Your task to perform on an android device: Is it going to rain today? Image 0: 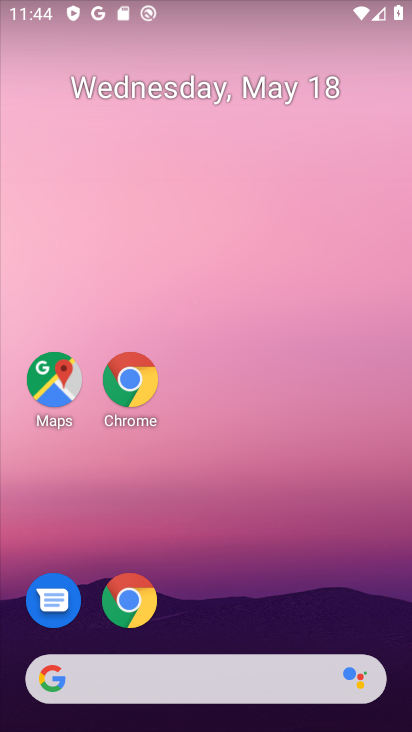
Step 0: drag from (326, 652) to (220, 85)
Your task to perform on an android device: Is it going to rain today? Image 1: 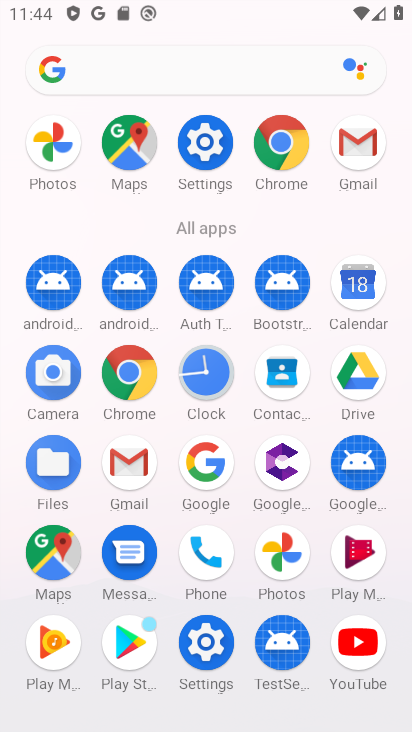
Step 1: press back button
Your task to perform on an android device: Is it going to rain today? Image 2: 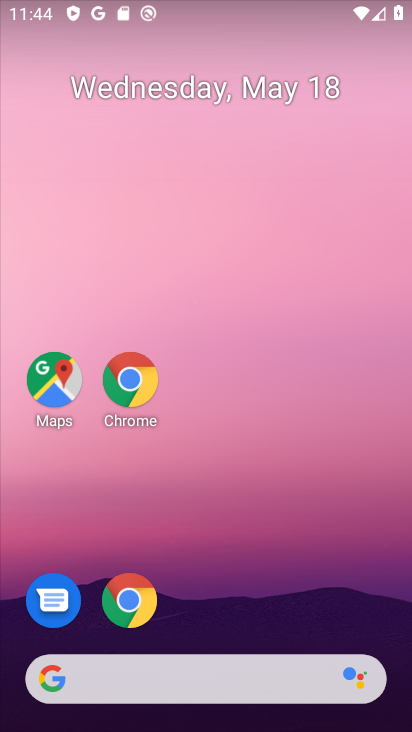
Step 2: drag from (6, 171) to (389, 371)
Your task to perform on an android device: Is it going to rain today? Image 3: 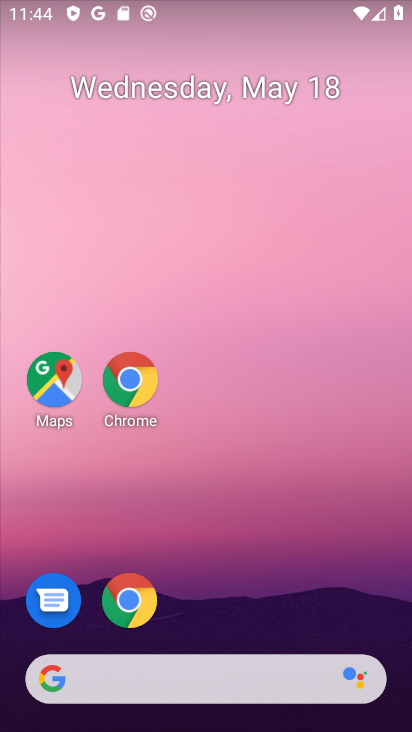
Step 3: drag from (2, 180) to (403, 539)
Your task to perform on an android device: Is it going to rain today? Image 4: 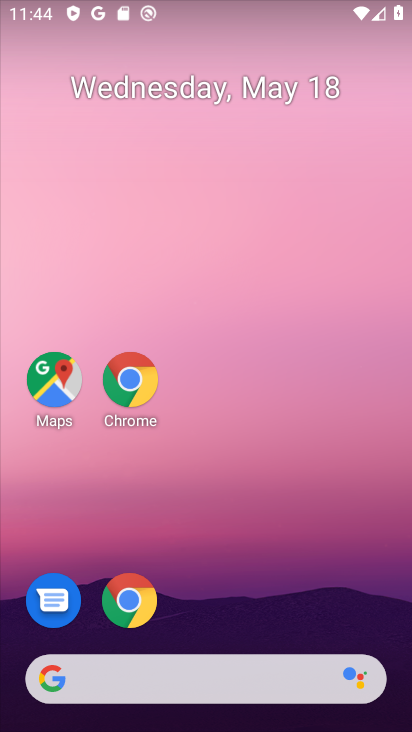
Step 4: drag from (251, 358) to (390, 438)
Your task to perform on an android device: Is it going to rain today? Image 5: 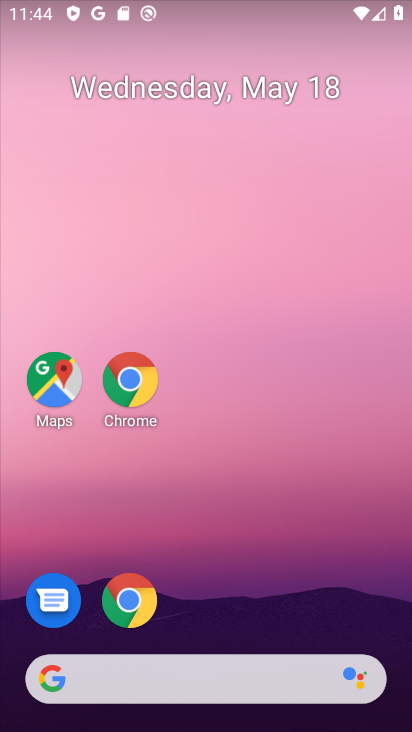
Step 5: drag from (10, 242) to (406, 570)
Your task to perform on an android device: Is it going to rain today? Image 6: 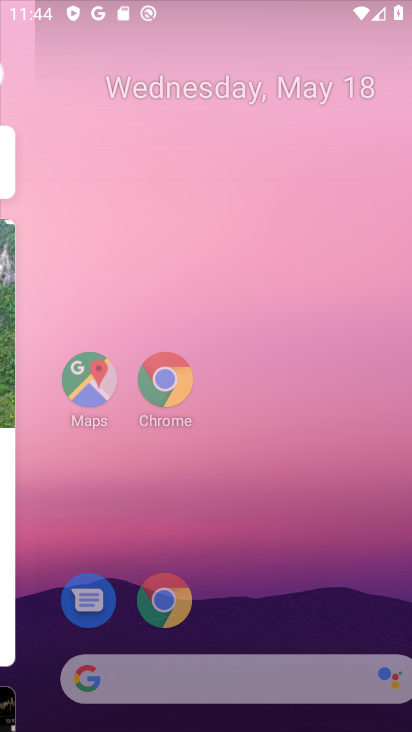
Step 6: drag from (8, 131) to (380, 413)
Your task to perform on an android device: Is it going to rain today? Image 7: 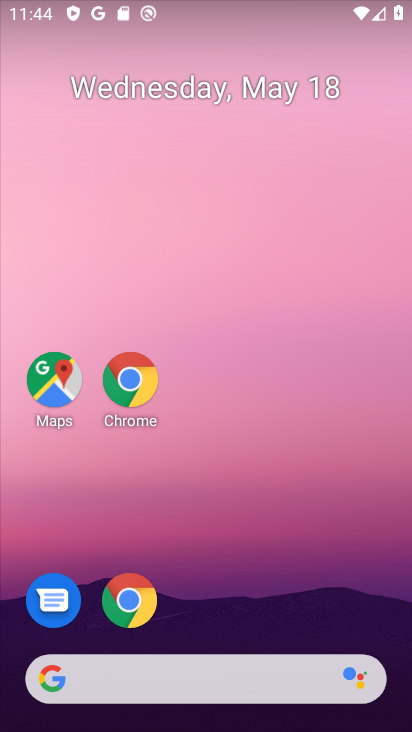
Step 7: drag from (9, 200) to (391, 358)
Your task to perform on an android device: Is it going to rain today? Image 8: 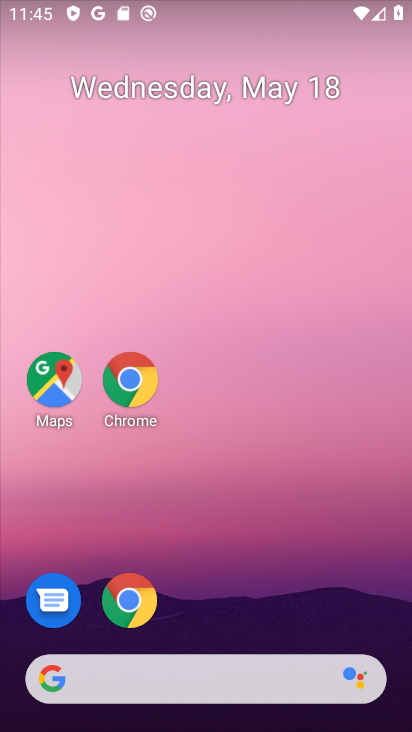
Step 8: drag from (24, 188) to (344, 388)
Your task to perform on an android device: Is it going to rain today? Image 9: 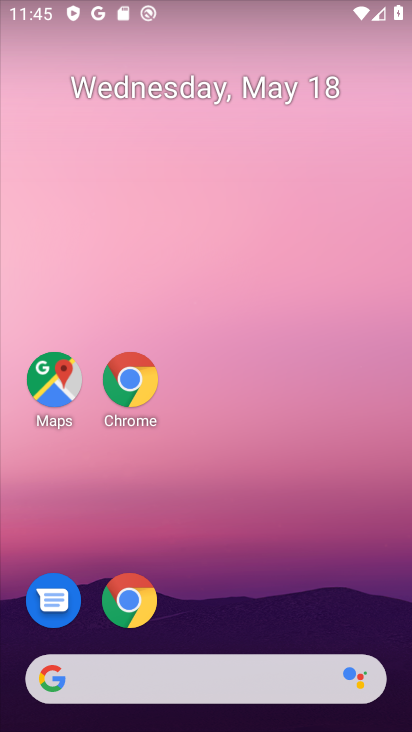
Step 9: drag from (12, 209) to (405, 329)
Your task to perform on an android device: Is it going to rain today? Image 10: 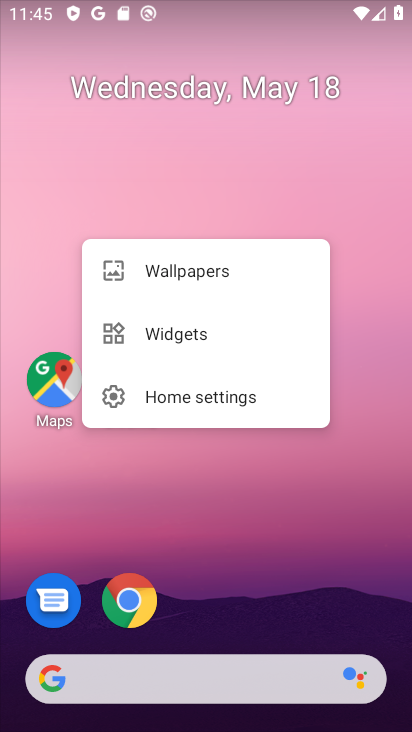
Step 10: drag from (10, 165) to (365, 258)
Your task to perform on an android device: Is it going to rain today? Image 11: 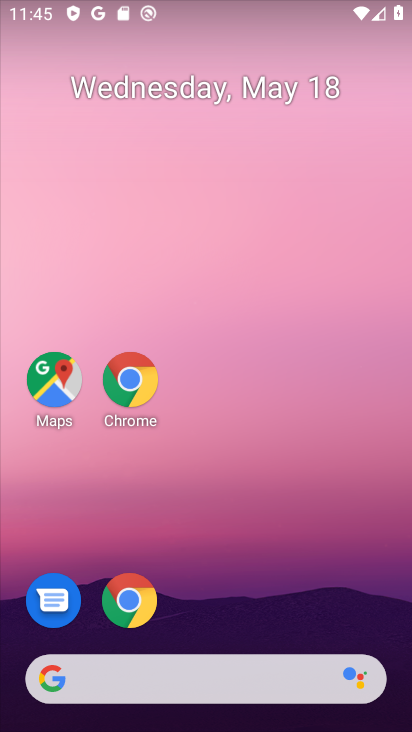
Step 11: click (115, 136)
Your task to perform on an android device: Is it going to rain today? Image 12: 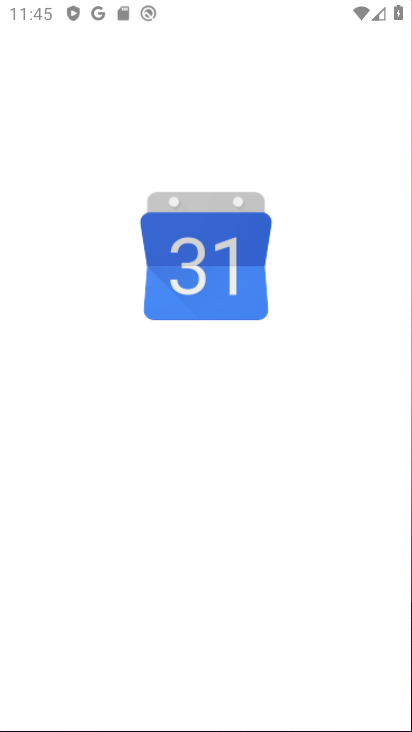
Step 12: drag from (9, 161) to (360, 431)
Your task to perform on an android device: Is it going to rain today? Image 13: 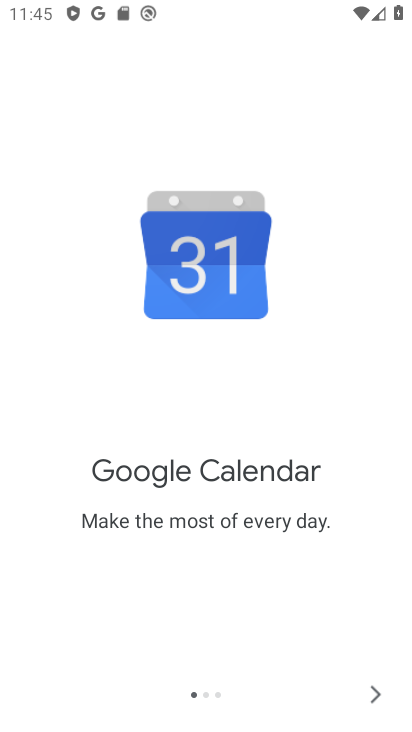
Step 13: click (370, 684)
Your task to perform on an android device: Is it going to rain today? Image 14: 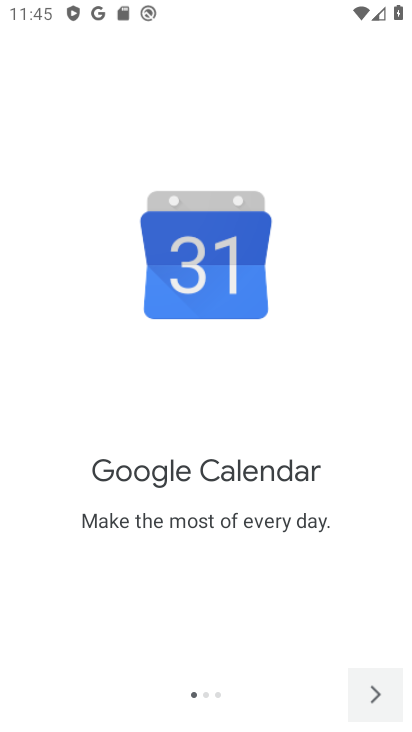
Step 14: click (374, 695)
Your task to perform on an android device: Is it going to rain today? Image 15: 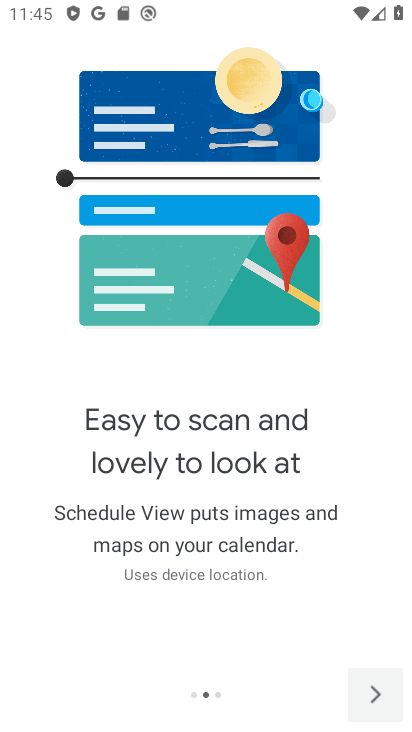
Step 15: click (382, 694)
Your task to perform on an android device: Is it going to rain today? Image 16: 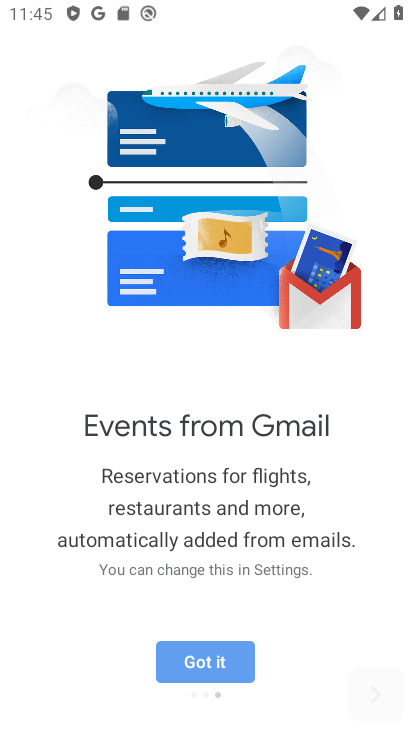
Step 16: click (385, 693)
Your task to perform on an android device: Is it going to rain today? Image 17: 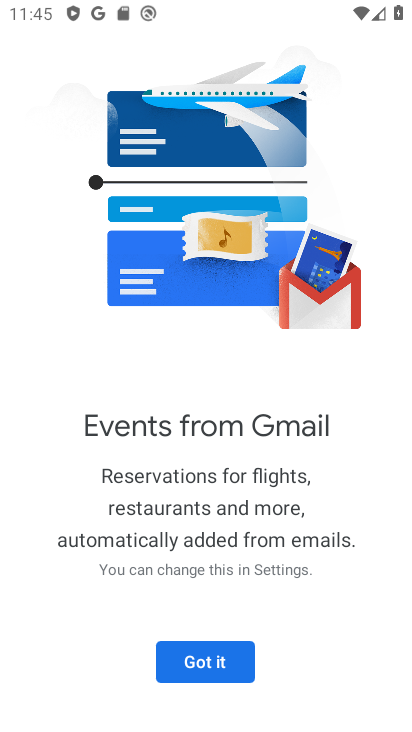
Step 17: click (199, 658)
Your task to perform on an android device: Is it going to rain today? Image 18: 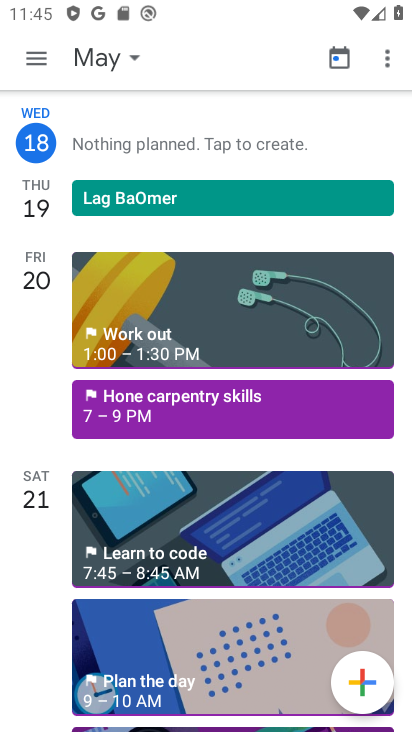
Step 18: press back button
Your task to perform on an android device: Is it going to rain today? Image 19: 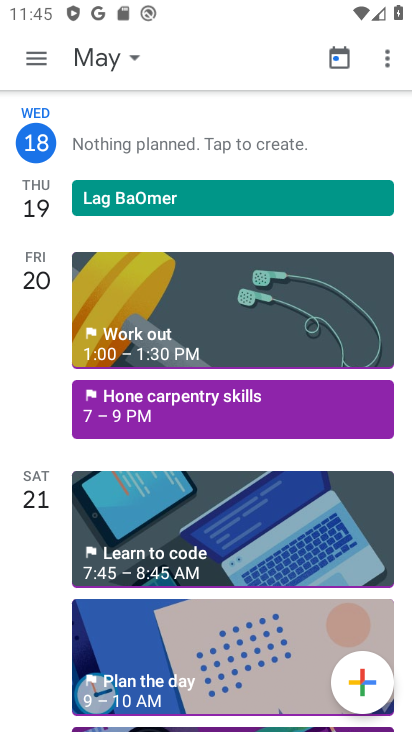
Step 19: press back button
Your task to perform on an android device: Is it going to rain today? Image 20: 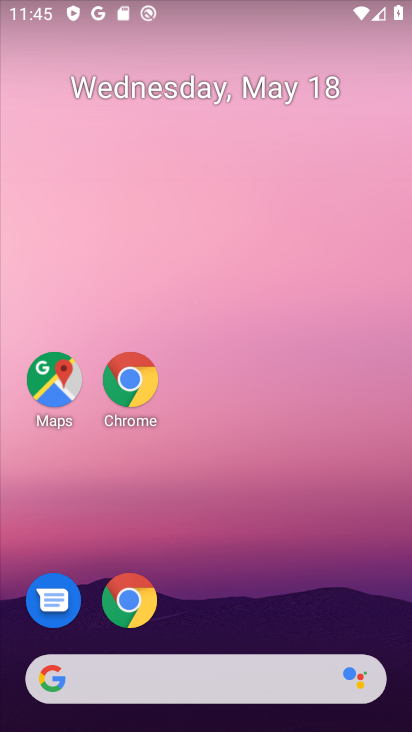
Step 20: drag from (36, 209) to (383, 716)
Your task to perform on an android device: Is it going to rain today? Image 21: 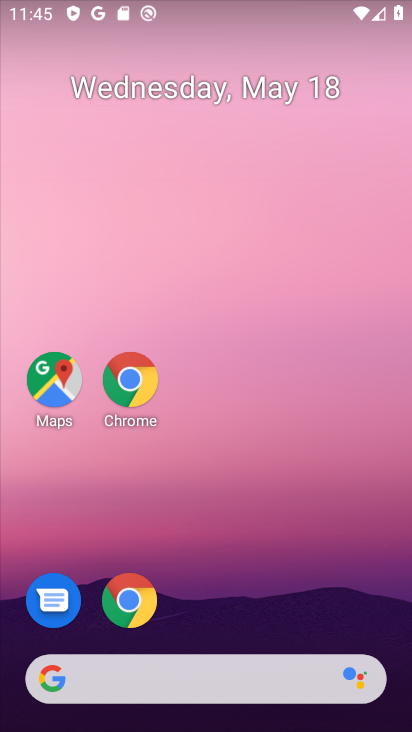
Step 21: drag from (8, 148) to (381, 541)
Your task to perform on an android device: Is it going to rain today? Image 22: 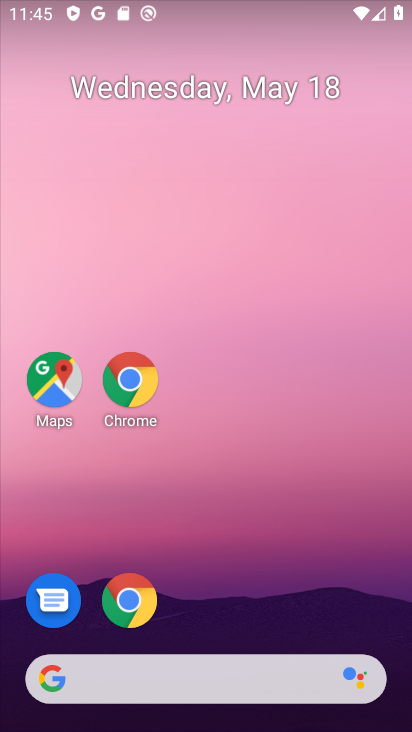
Step 22: drag from (74, 230) to (266, 371)
Your task to perform on an android device: Is it going to rain today? Image 23: 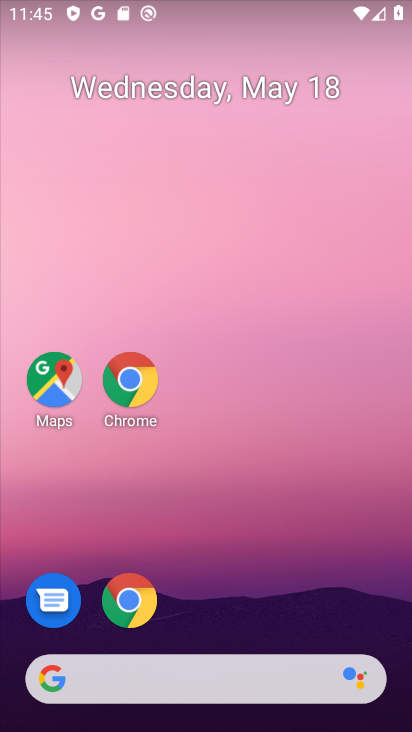
Step 23: drag from (215, 362) to (263, 410)
Your task to perform on an android device: Is it going to rain today? Image 24: 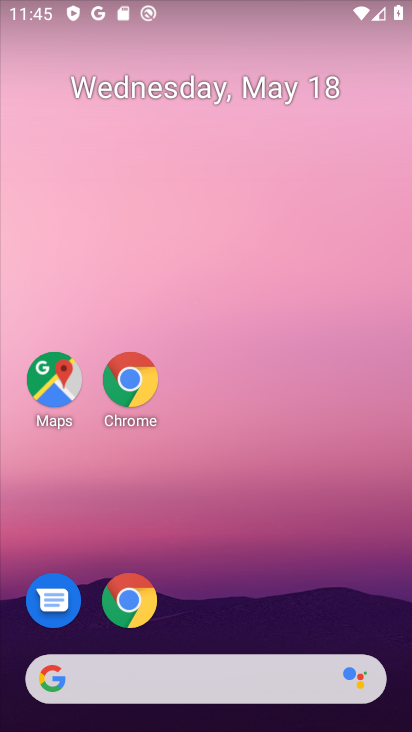
Step 24: click (271, 354)
Your task to perform on an android device: Is it going to rain today? Image 25: 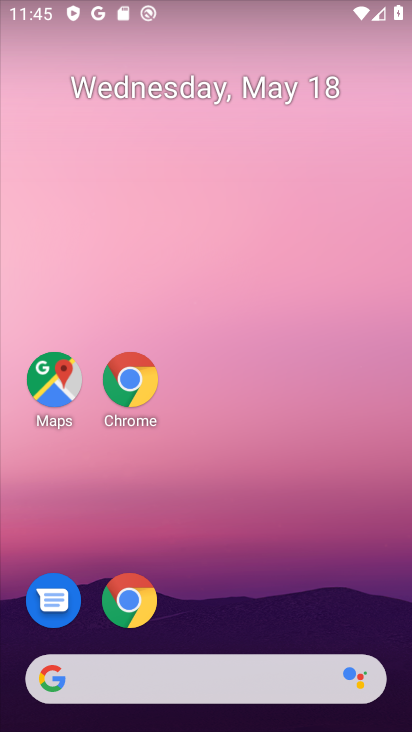
Step 25: drag from (66, 203) to (319, 483)
Your task to perform on an android device: Is it going to rain today? Image 26: 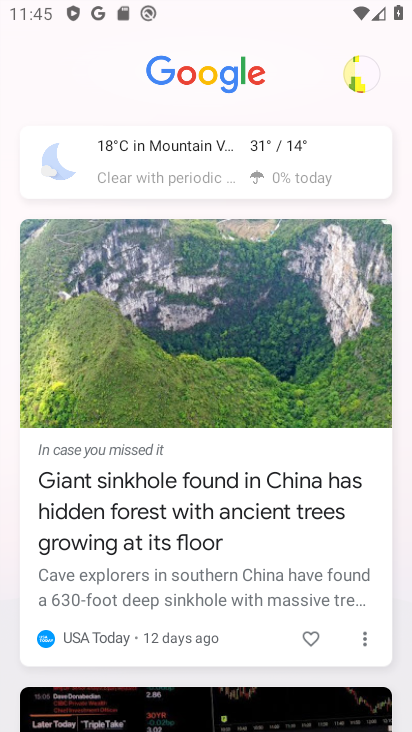
Step 26: click (175, 150)
Your task to perform on an android device: Is it going to rain today? Image 27: 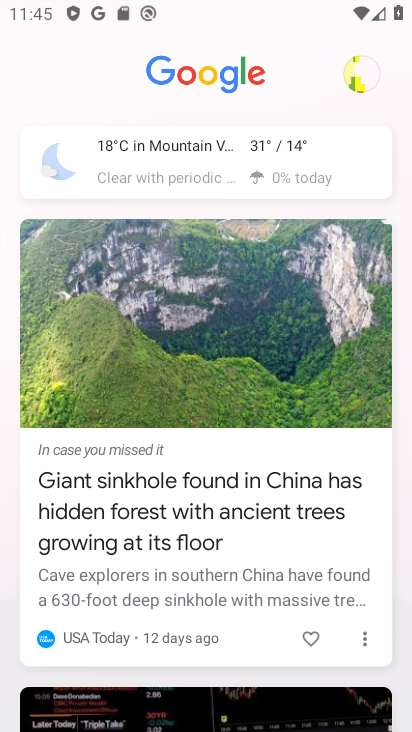
Step 27: click (179, 150)
Your task to perform on an android device: Is it going to rain today? Image 28: 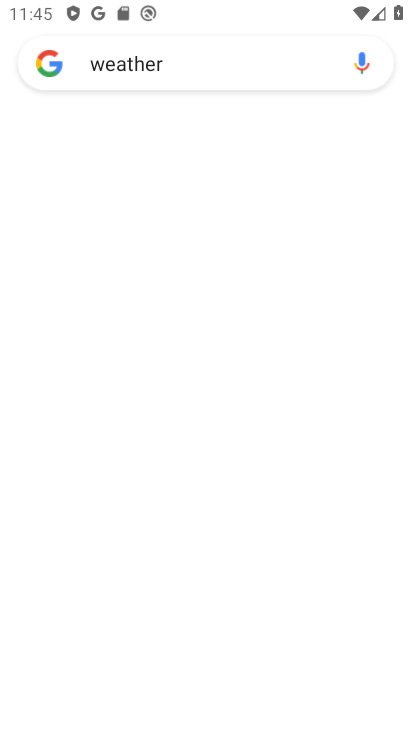
Step 28: click (176, 153)
Your task to perform on an android device: Is it going to rain today? Image 29: 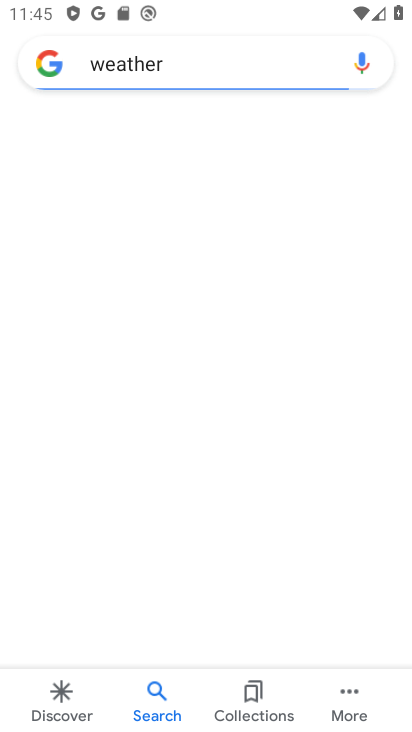
Step 29: click (172, 162)
Your task to perform on an android device: Is it going to rain today? Image 30: 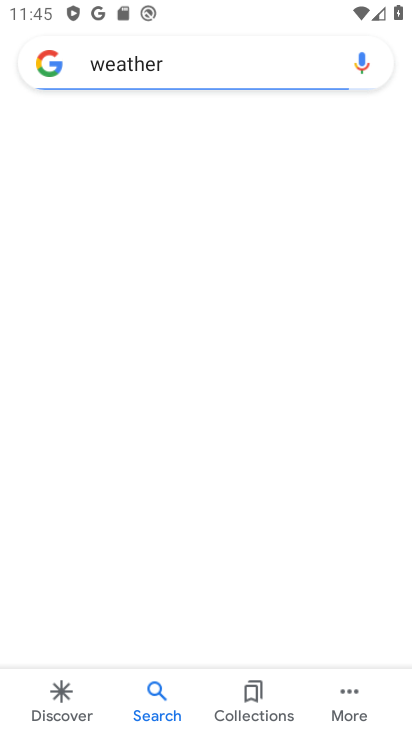
Step 30: click (172, 164)
Your task to perform on an android device: Is it going to rain today? Image 31: 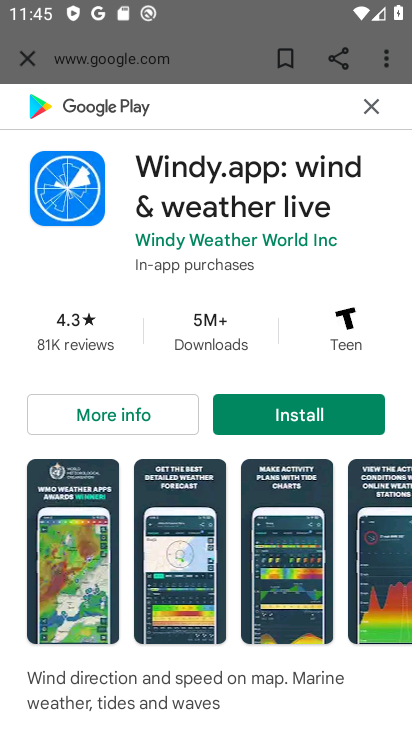
Step 31: click (380, 104)
Your task to perform on an android device: Is it going to rain today? Image 32: 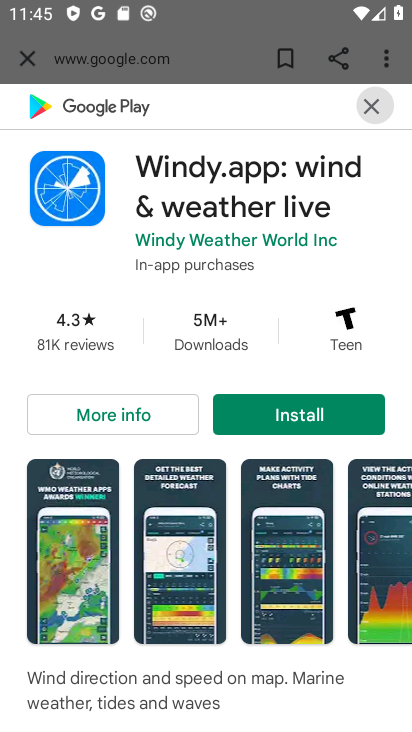
Step 32: click (380, 104)
Your task to perform on an android device: Is it going to rain today? Image 33: 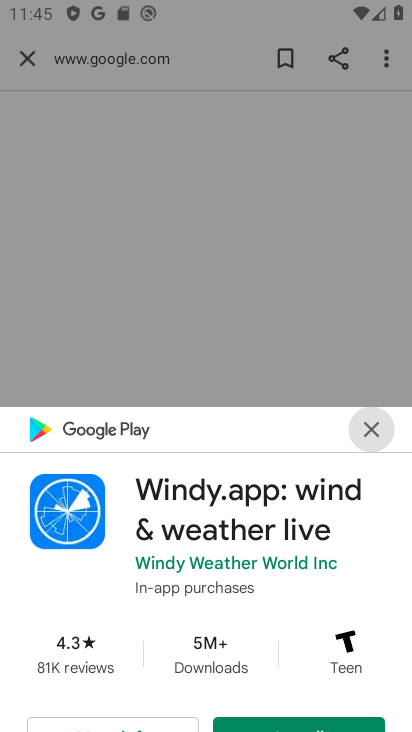
Step 33: click (380, 104)
Your task to perform on an android device: Is it going to rain today? Image 34: 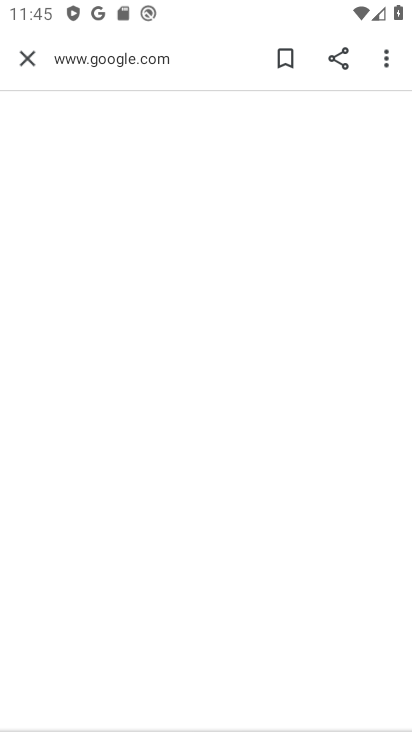
Step 34: click (380, 104)
Your task to perform on an android device: Is it going to rain today? Image 35: 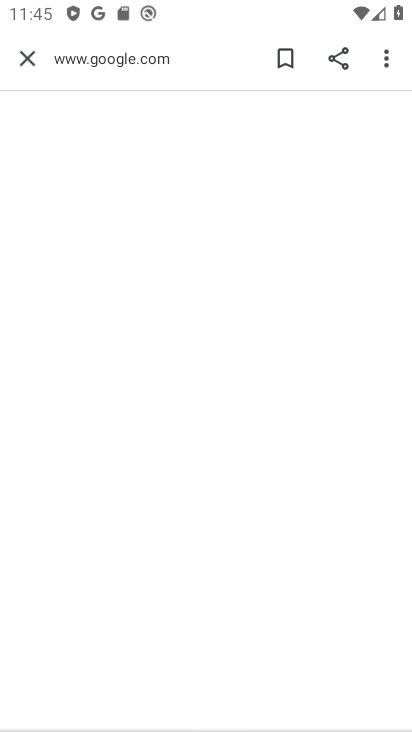
Step 35: click (381, 104)
Your task to perform on an android device: Is it going to rain today? Image 36: 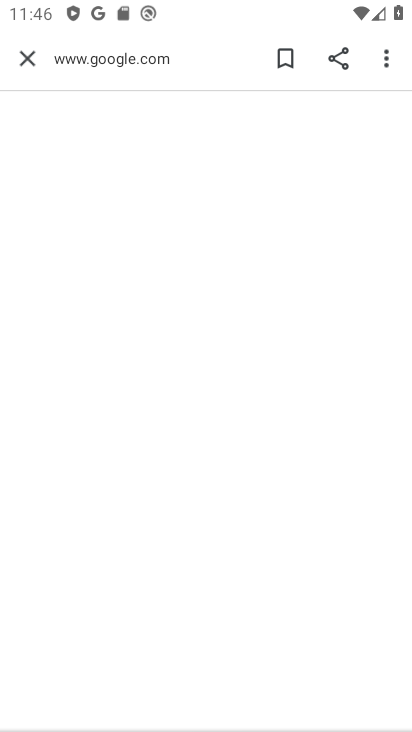
Step 36: click (29, 70)
Your task to perform on an android device: Is it going to rain today? Image 37: 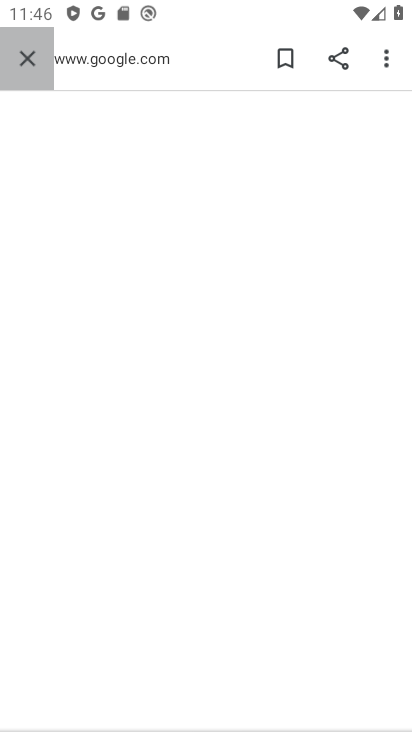
Step 37: click (29, 70)
Your task to perform on an android device: Is it going to rain today? Image 38: 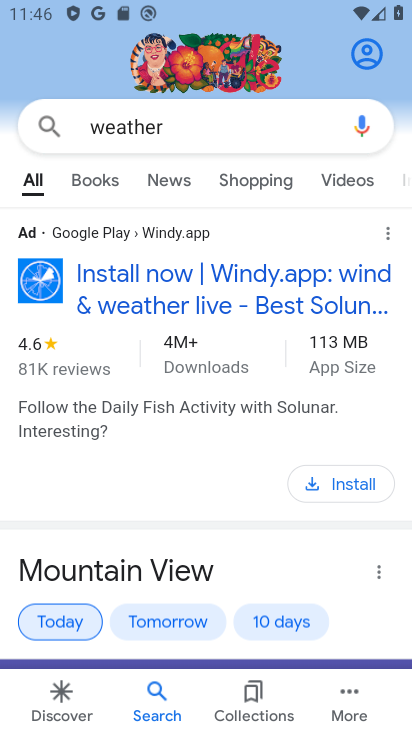
Step 38: click (28, 71)
Your task to perform on an android device: Is it going to rain today? Image 39: 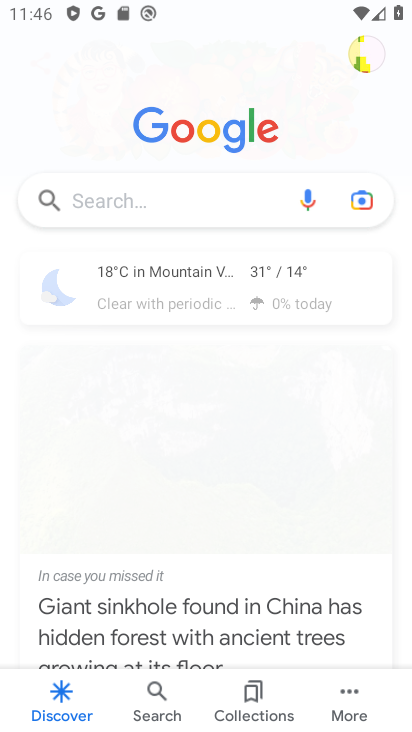
Step 39: click (28, 71)
Your task to perform on an android device: Is it going to rain today? Image 40: 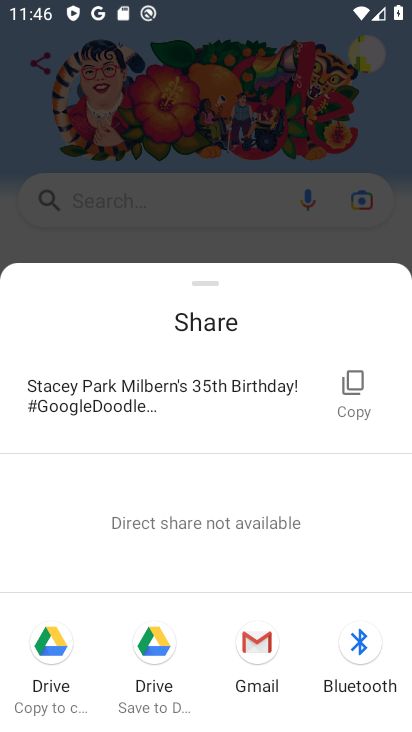
Step 40: click (211, 220)
Your task to perform on an android device: Is it going to rain today? Image 41: 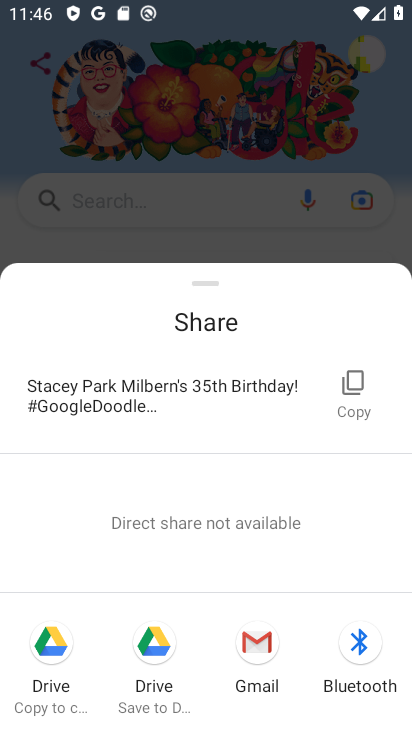
Step 41: click (211, 220)
Your task to perform on an android device: Is it going to rain today? Image 42: 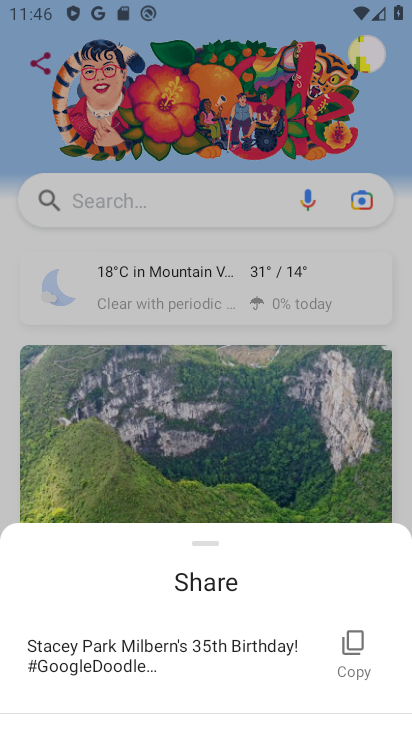
Step 42: click (214, 220)
Your task to perform on an android device: Is it going to rain today? Image 43: 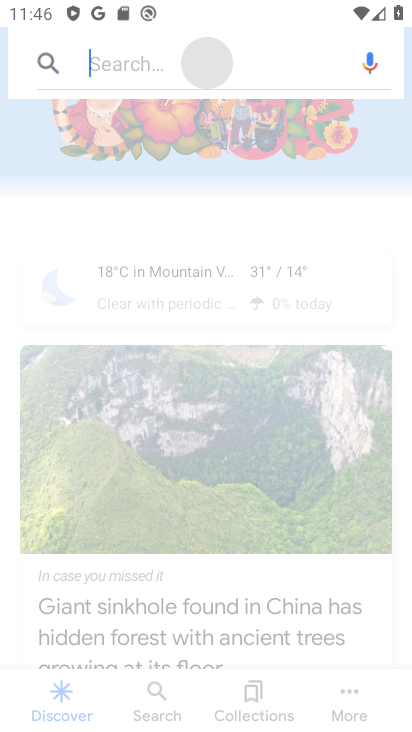
Step 43: click (215, 237)
Your task to perform on an android device: Is it going to rain today? Image 44: 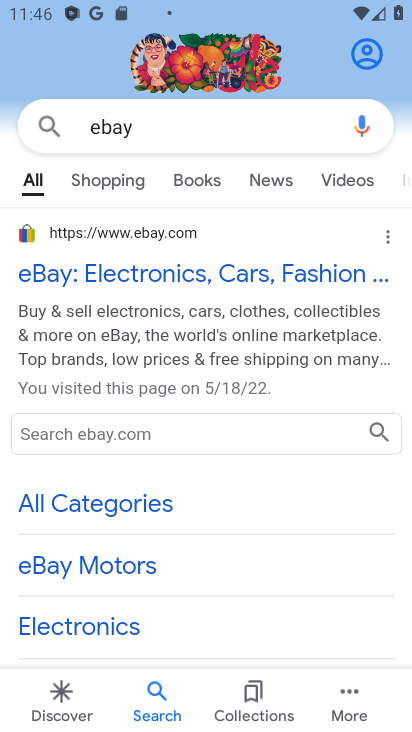
Step 44: press back button
Your task to perform on an android device: Is it going to rain today? Image 45: 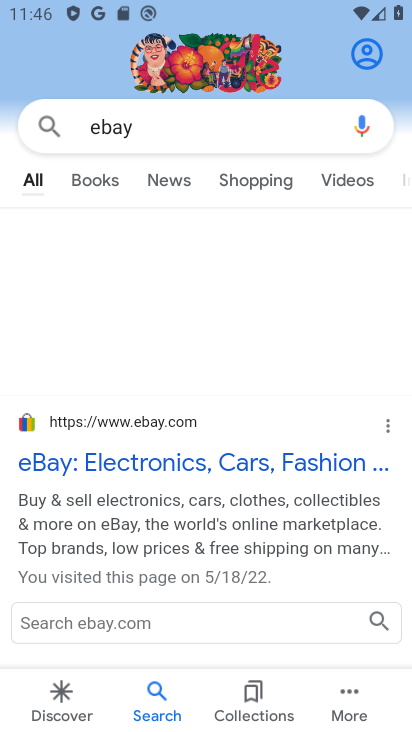
Step 45: press back button
Your task to perform on an android device: Is it going to rain today? Image 46: 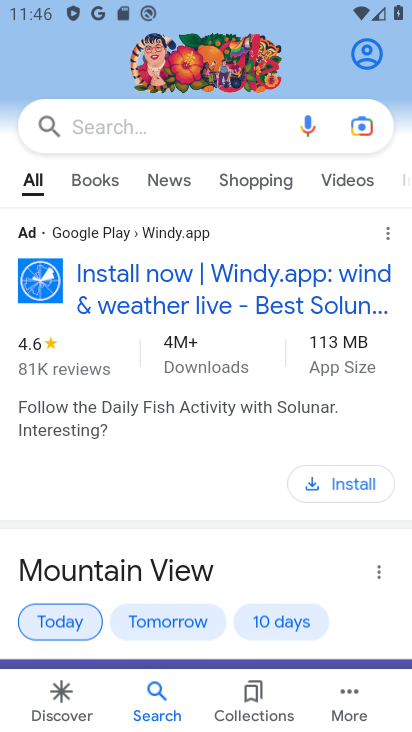
Step 46: press back button
Your task to perform on an android device: Is it going to rain today? Image 47: 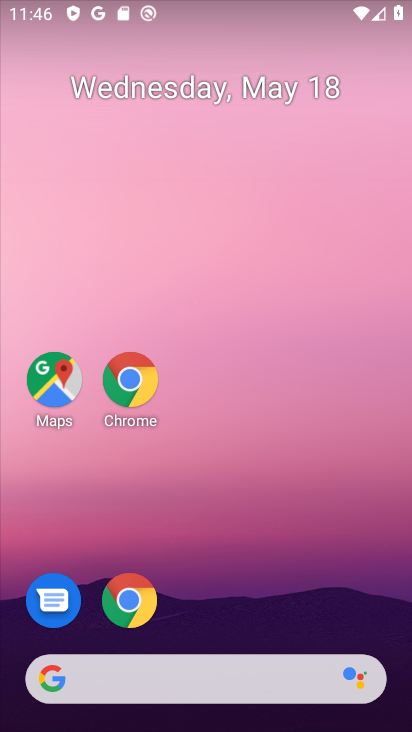
Step 47: drag from (313, 601) to (206, 55)
Your task to perform on an android device: Is it going to rain today? Image 48: 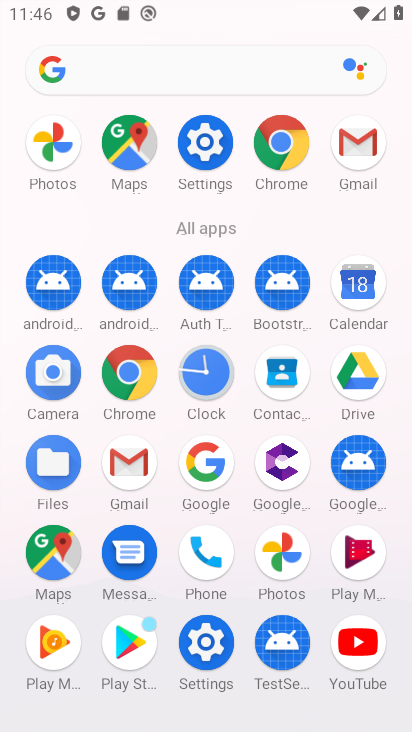
Step 48: press back button
Your task to perform on an android device: Is it going to rain today? Image 49: 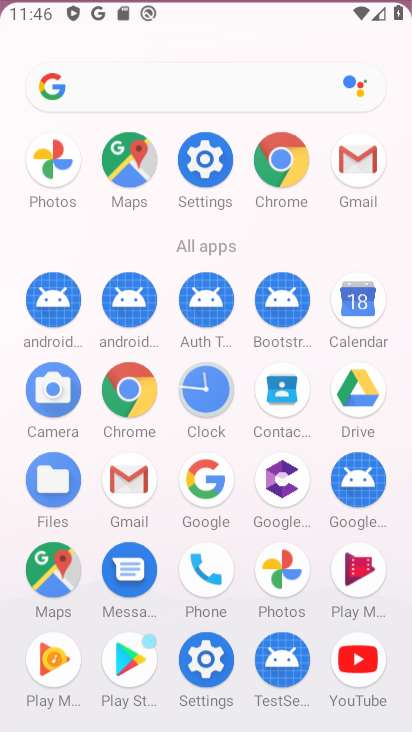
Step 49: press back button
Your task to perform on an android device: Is it going to rain today? Image 50: 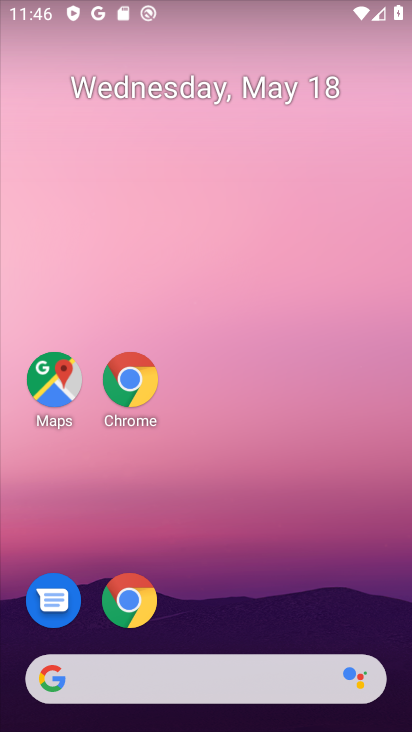
Step 50: press back button
Your task to perform on an android device: Is it going to rain today? Image 51: 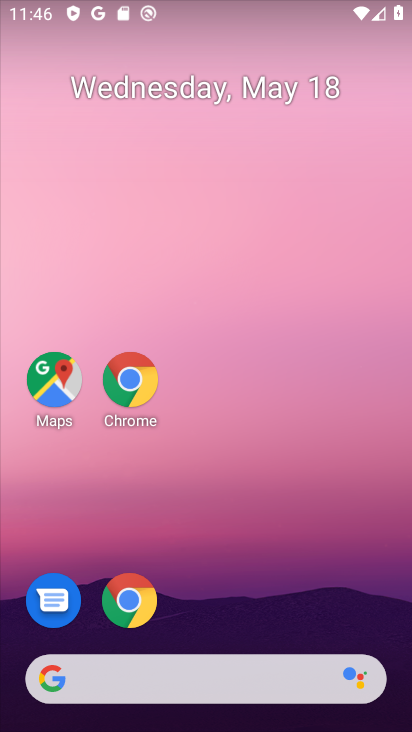
Step 51: drag from (3, 214) to (395, 519)
Your task to perform on an android device: Is it going to rain today? Image 52: 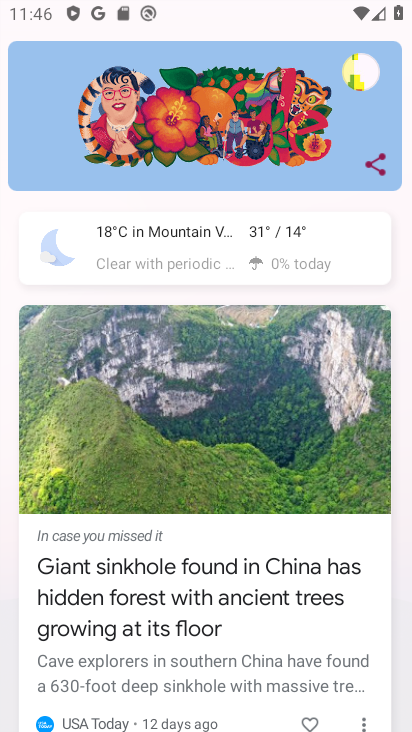
Step 52: drag from (230, 313) to (382, 456)
Your task to perform on an android device: Is it going to rain today? Image 53: 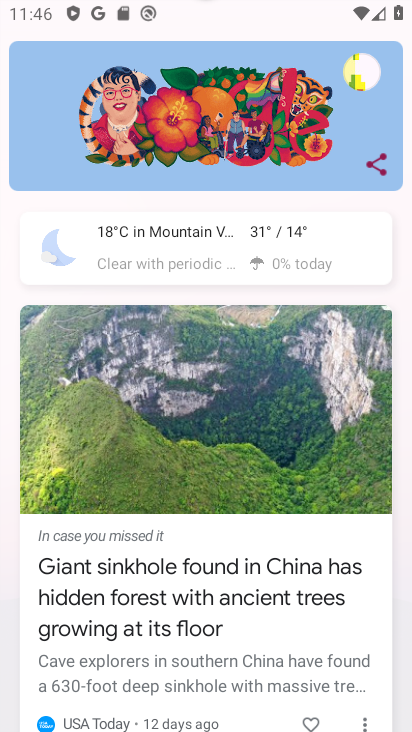
Step 53: drag from (170, 259) to (223, 418)
Your task to perform on an android device: Is it going to rain today? Image 54: 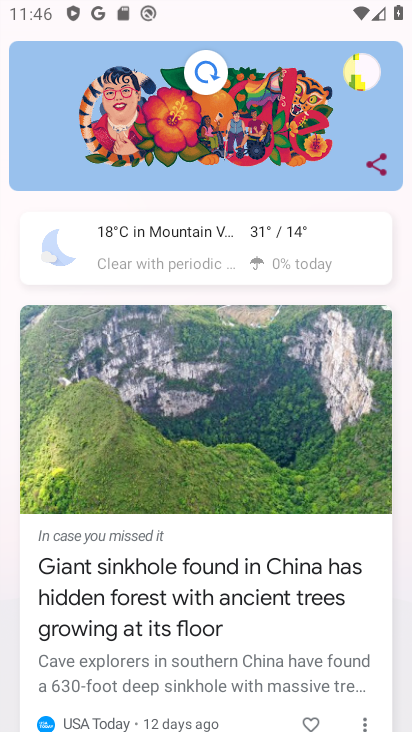
Step 54: drag from (155, 229) to (238, 428)
Your task to perform on an android device: Is it going to rain today? Image 55: 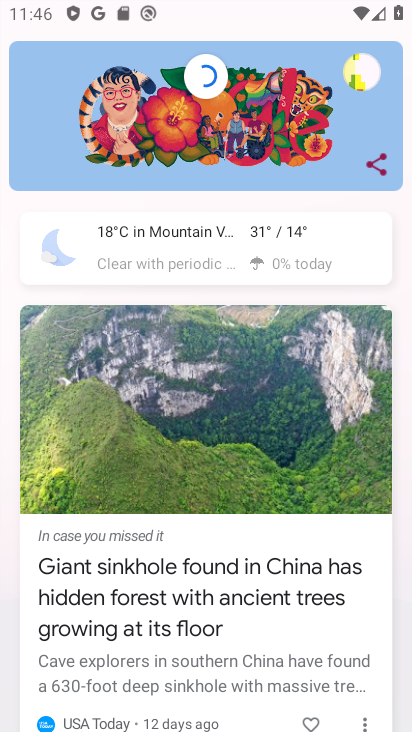
Step 55: drag from (178, 236) to (244, 401)
Your task to perform on an android device: Is it going to rain today? Image 56: 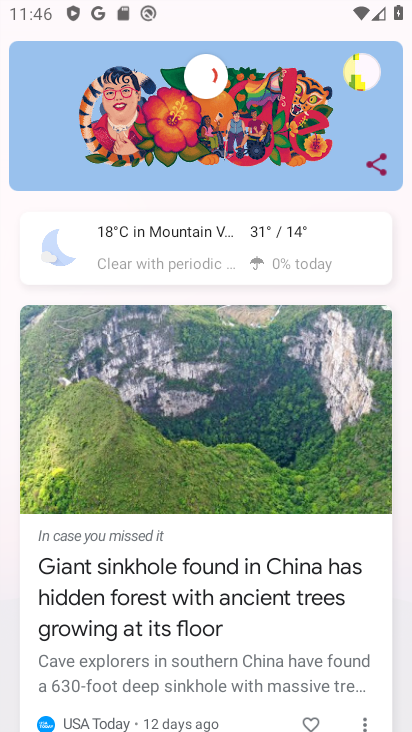
Step 56: click (198, 253)
Your task to perform on an android device: Is it going to rain today? Image 57: 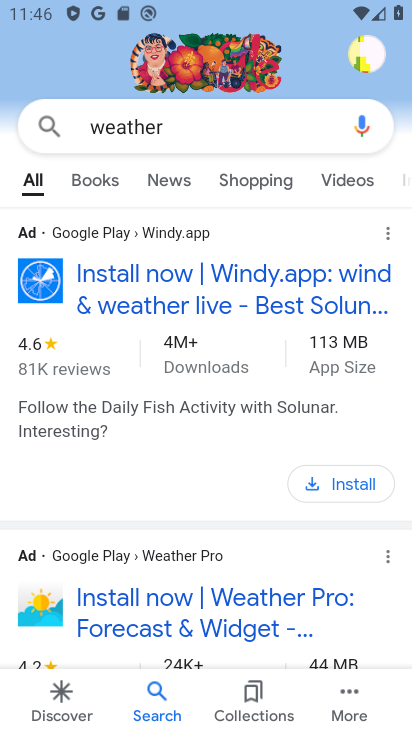
Step 57: task complete